Your task to perform on an android device: move an email to a new category in the gmail app Image 0: 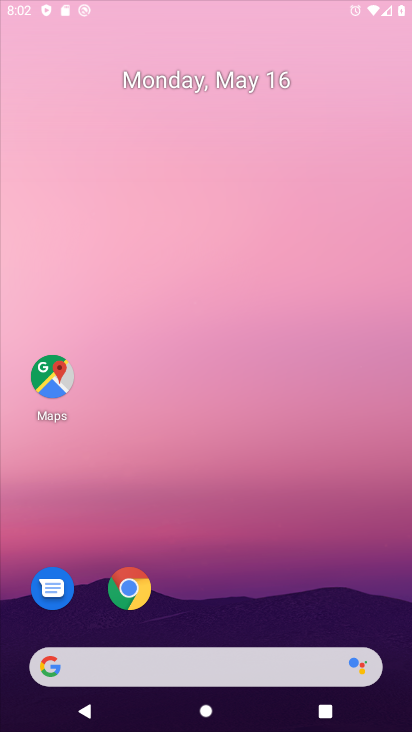
Step 0: drag from (287, 682) to (32, 104)
Your task to perform on an android device: move an email to a new category in the gmail app Image 1: 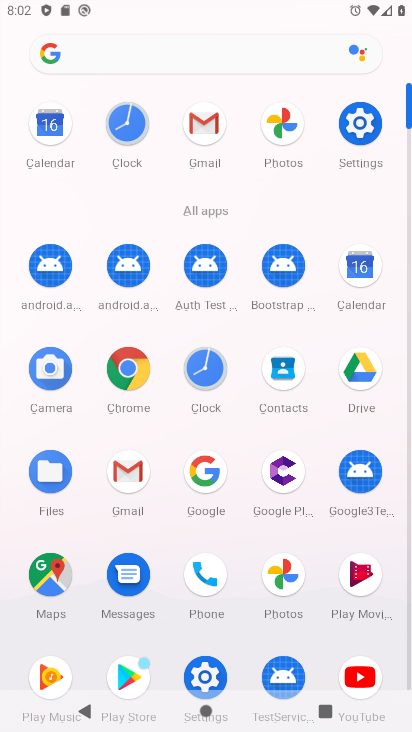
Step 1: click (118, 472)
Your task to perform on an android device: move an email to a new category in the gmail app Image 2: 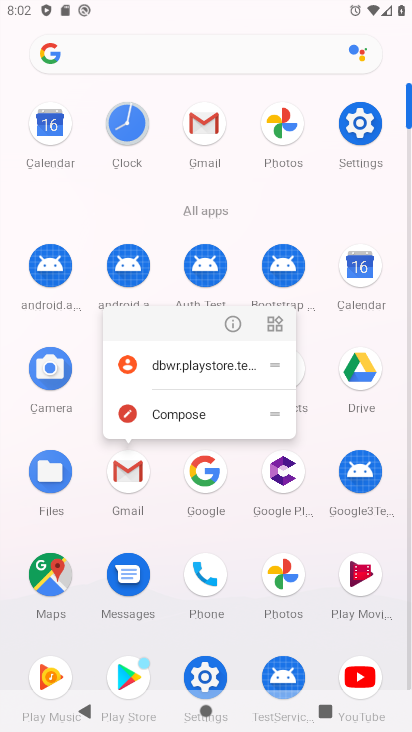
Step 2: click (118, 473)
Your task to perform on an android device: move an email to a new category in the gmail app Image 3: 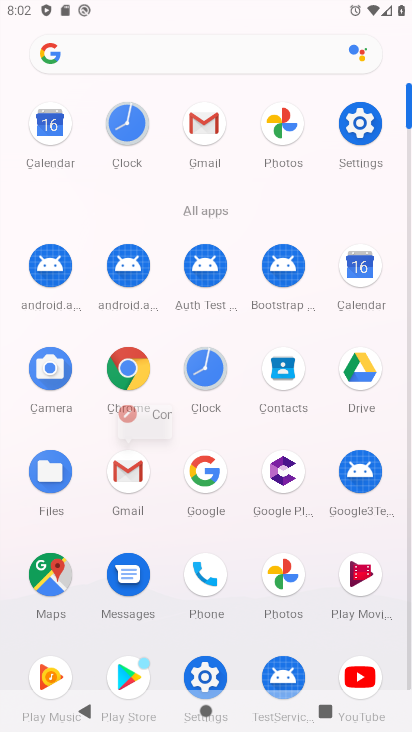
Step 3: click (118, 473)
Your task to perform on an android device: move an email to a new category in the gmail app Image 4: 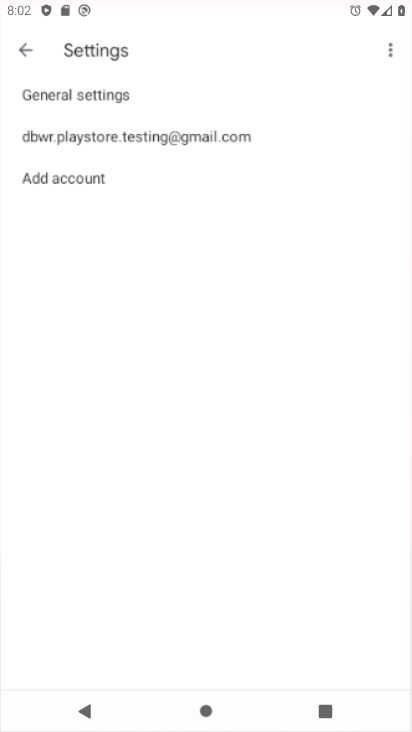
Step 4: click (118, 473)
Your task to perform on an android device: move an email to a new category in the gmail app Image 5: 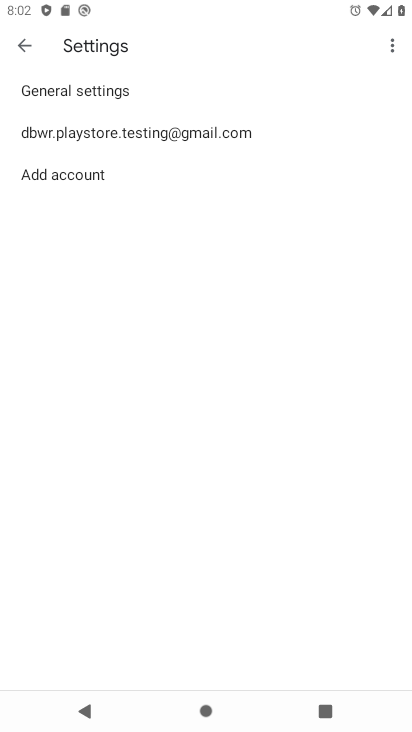
Step 5: click (118, 468)
Your task to perform on an android device: move an email to a new category in the gmail app Image 6: 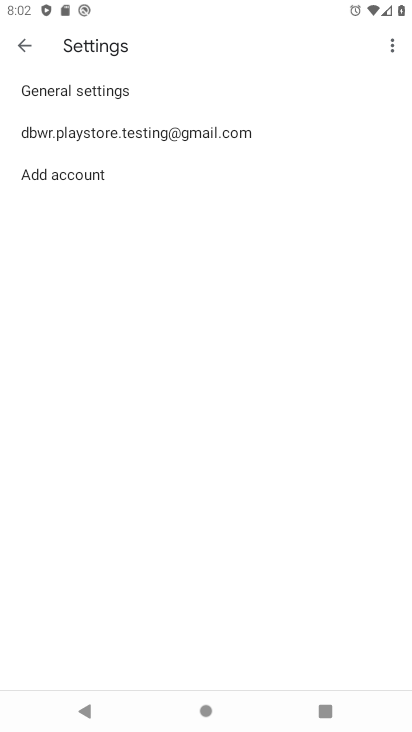
Step 6: click (26, 34)
Your task to perform on an android device: move an email to a new category in the gmail app Image 7: 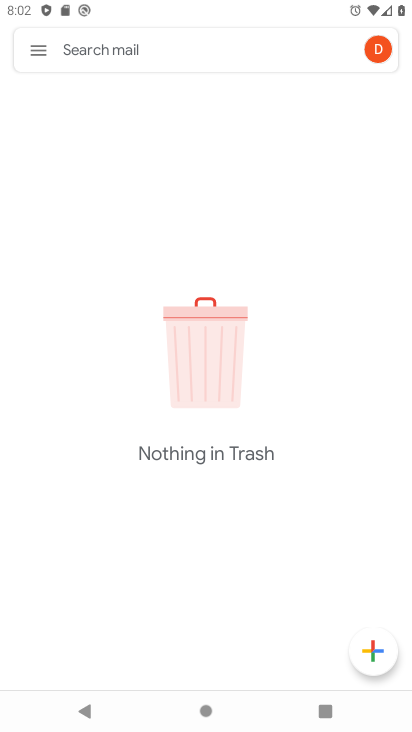
Step 7: press back button
Your task to perform on an android device: move an email to a new category in the gmail app Image 8: 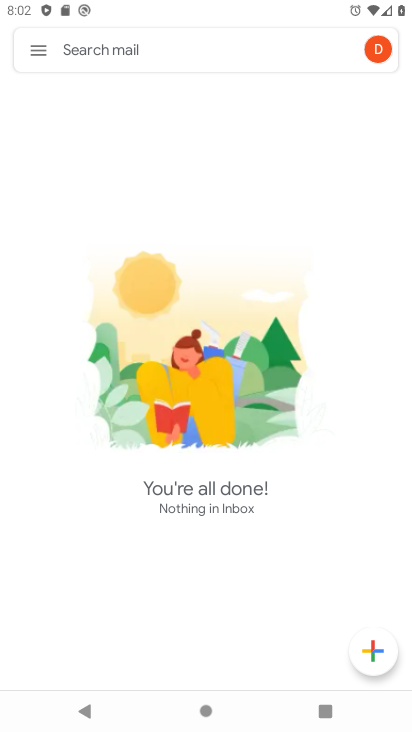
Step 8: click (34, 44)
Your task to perform on an android device: move an email to a new category in the gmail app Image 9: 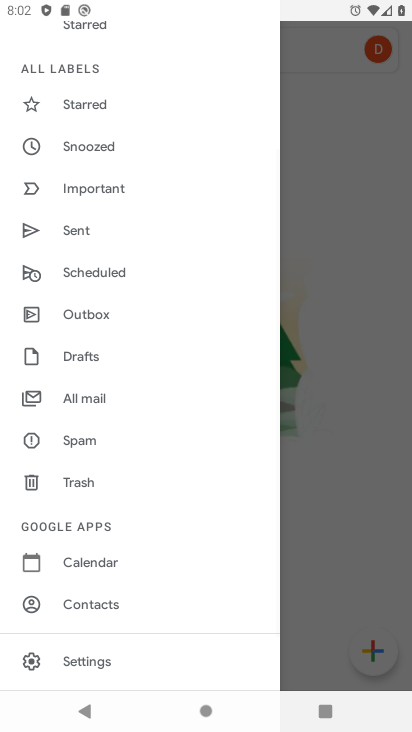
Step 9: click (81, 477)
Your task to perform on an android device: move an email to a new category in the gmail app Image 10: 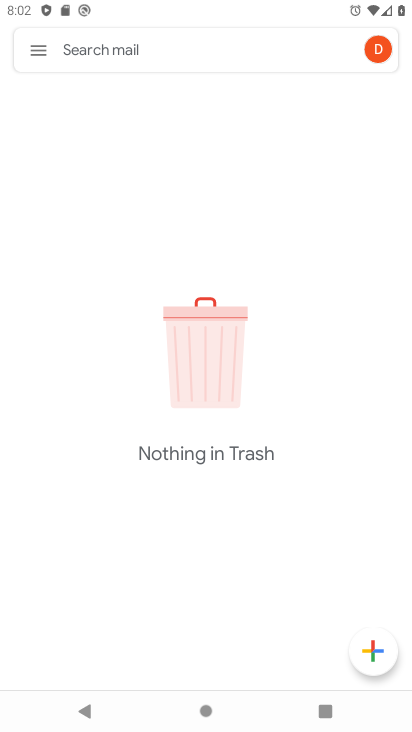
Step 10: press back button
Your task to perform on an android device: move an email to a new category in the gmail app Image 11: 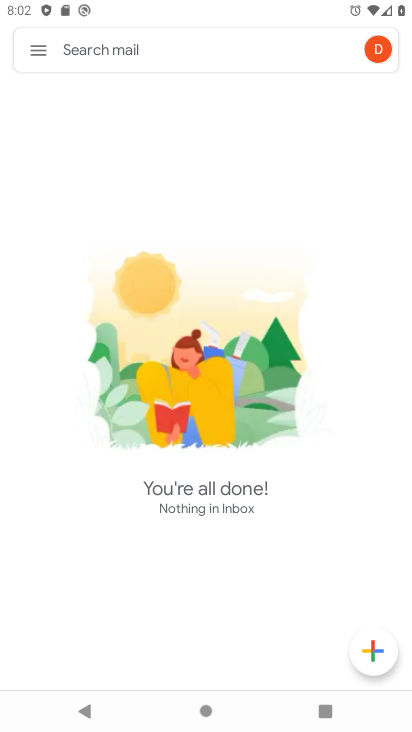
Step 11: click (25, 51)
Your task to perform on an android device: move an email to a new category in the gmail app Image 12: 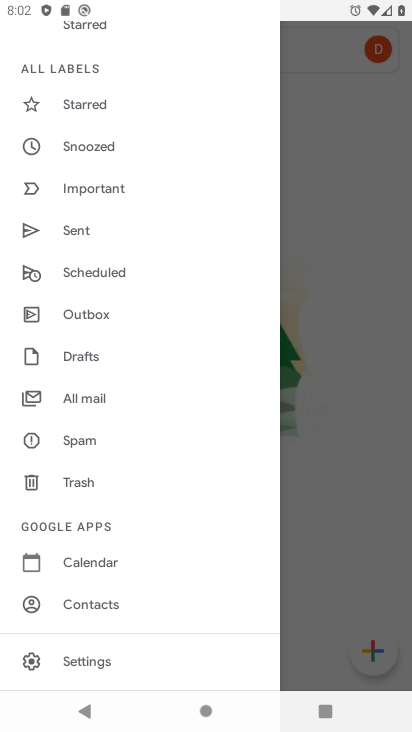
Step 12: click (98, 396)
Your task to perform on an android device: move an email to a new category in the gmail app Image 13: 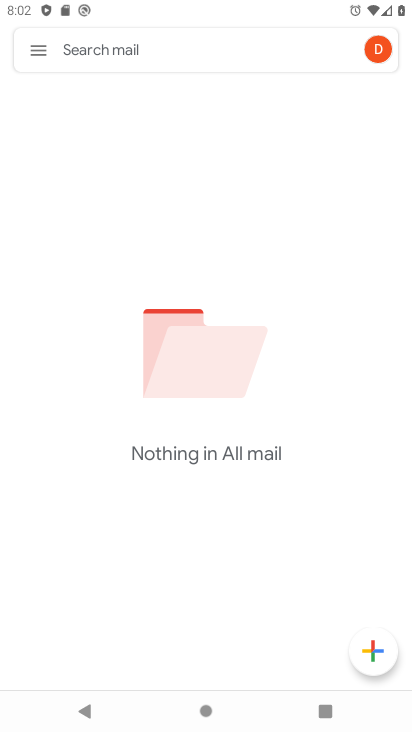
Step 13: task complete